Your task to perform on an android device: uninstall "Cash App" Image 0: 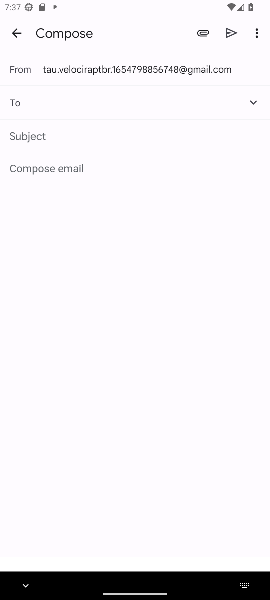
Step 0: press home button
Your task to perform on an android device: uninstall "Cash App" Image 1: 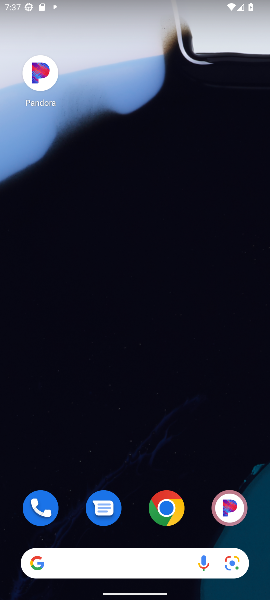
Step 1: drag from (134, 489) to (143, 3)
Your task to perform on an android device: uninstall "Cash App" Image 2: 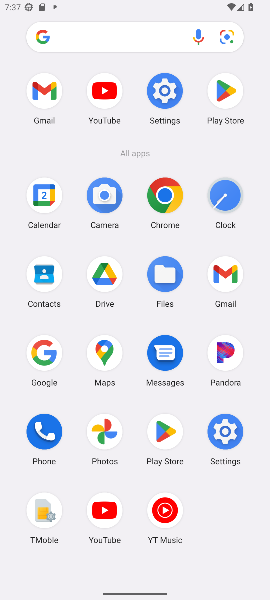
Step 2: click (235, 109)
Your task to perform on an android device: uninstall "Cash App" Image 3: 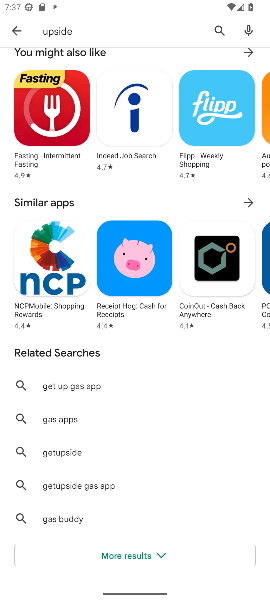
Step 3: click (71, 31)
Your task to perform on an android device: uninstall "Cash App" Image 4: 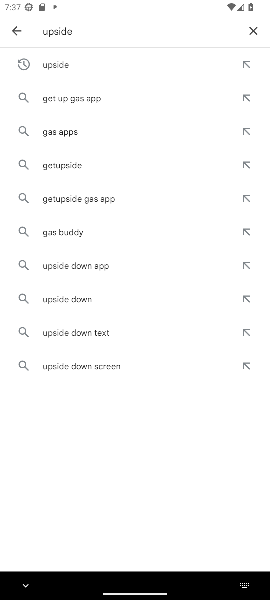
Step 4: click (259, 28)
Your task to perform on an android device: uninstall "Cash App" Image 5: 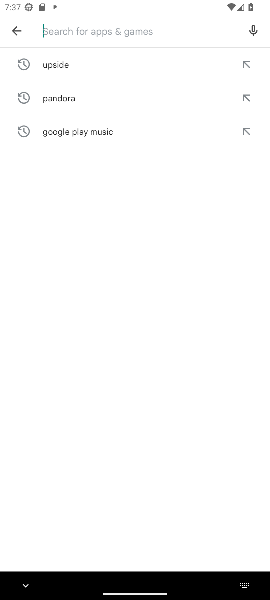
Step 5: type "Cah App"
Your task to perform on an android device: uninstall "Cash App" Image 6: 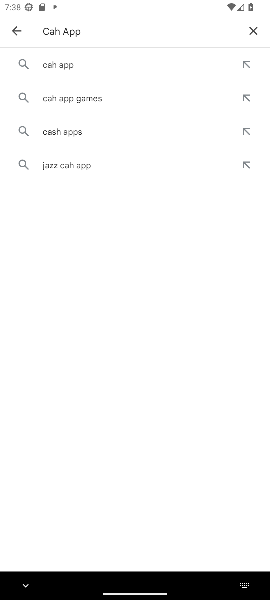
Step 6: click (51, 24)
Your task to perform on an android device: uninstall "Cash App" Image 7: 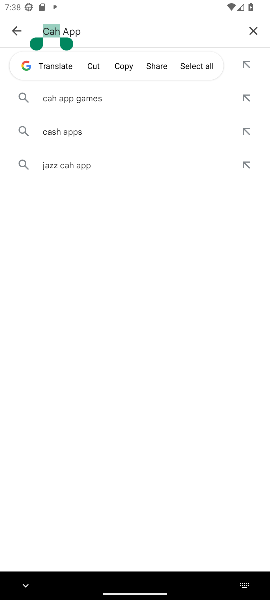
Step 7: type "cash"
Your task to perform on an android device: uninstall "Cash App" Image 8: 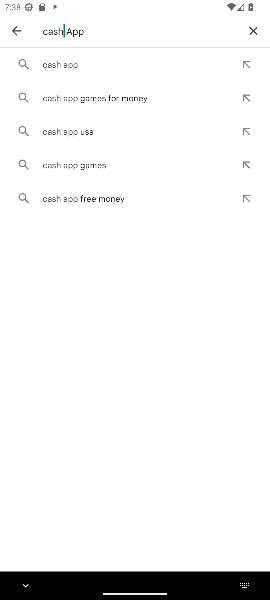
Step 8: click (56, 68)
Your task to perform on an android device: uninstall "Cash App" Image 9: 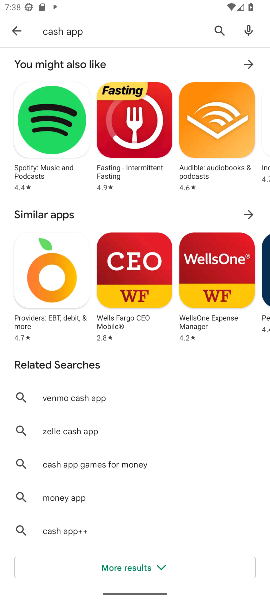
Step 9: drag from (199, 150) to (97, 146)
Your task to perform on an android device: uninstall "Cash App" Image 10: 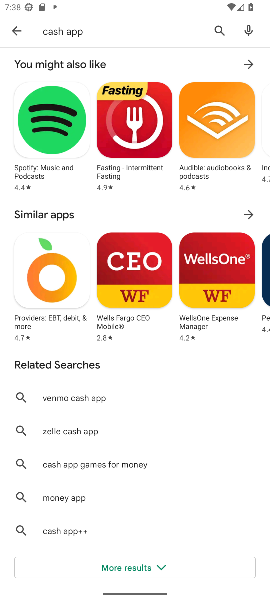
Step 10: drag from (224, 284) to (4, 135)
Your task to perform on an android device: uninstall "Cash App" Image 11: 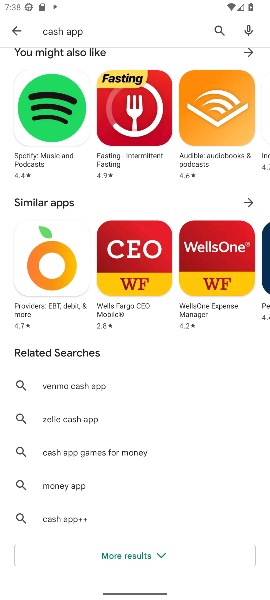
Step 11: drag from (125, 116) to (6, 95)
Your task to perform on an android device: uninstall "Cash App" Image 12: 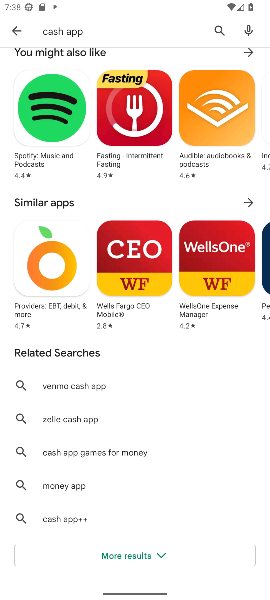
Step 12: click (15, 26)
Your task to perform on an android device: uninstall "Cash App" Image 13: 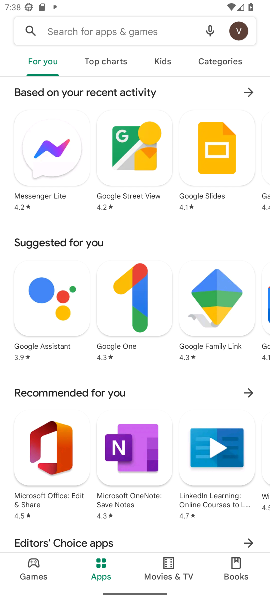
Step 13: drag from (135, 184) to (100, 434)
Your task to perform on an android device: uninstall "Cash App" Image 14: 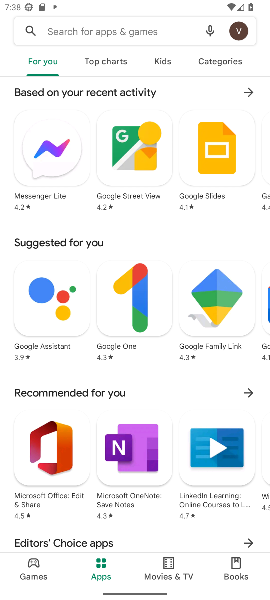
Step 14: drag from (123, 389) to (156, 87)
Your task to perform on an android device: uninstall "Cash App" Image 15: 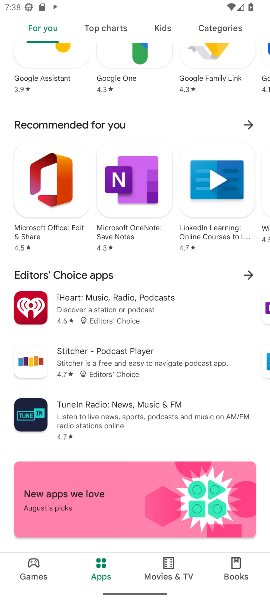
Step 15: drag from (159, 90) to (144, 417)
Your task to perform on an android device: uninstall "Cash App" Image 16: 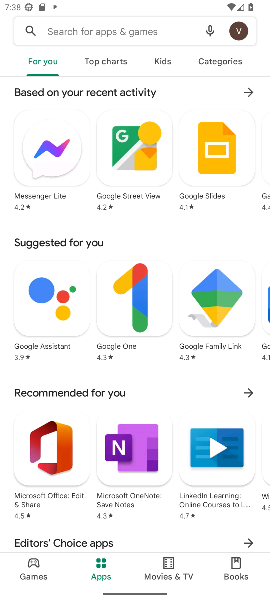
Step 16: click (110, 31)
Your task to perform on an android device: uninstall "Cash App" Image 17: 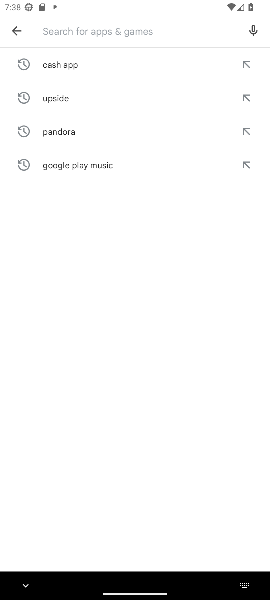
Step 17: type "Cash App"
Your task to perform on an android device: uninstall "Cash App" Image 18: 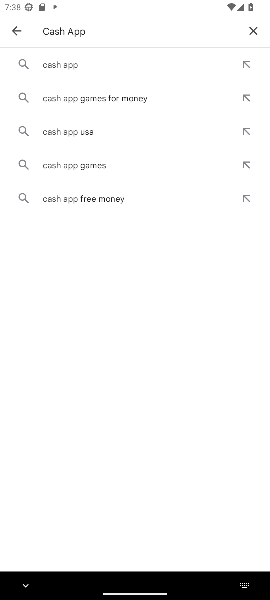
Step 18: click (76, 69)
Your task to perform on an android device: uninstall "Cash App" Image 19: 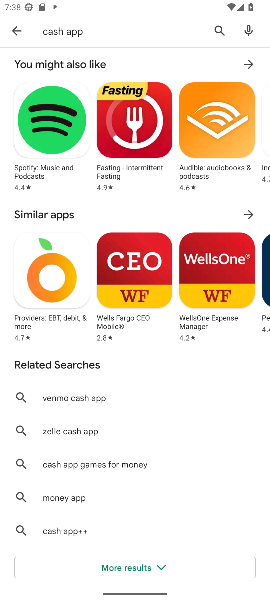
Step 19: task complete